Your task to perform on an android device: add a contact in the contacts app Image 0: 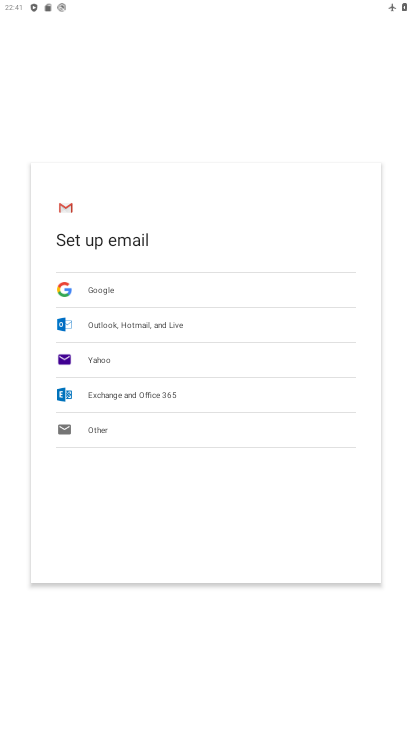
Step 0: press home button
Your task to perform on an android device: add a contact in the contacts app Image 1: 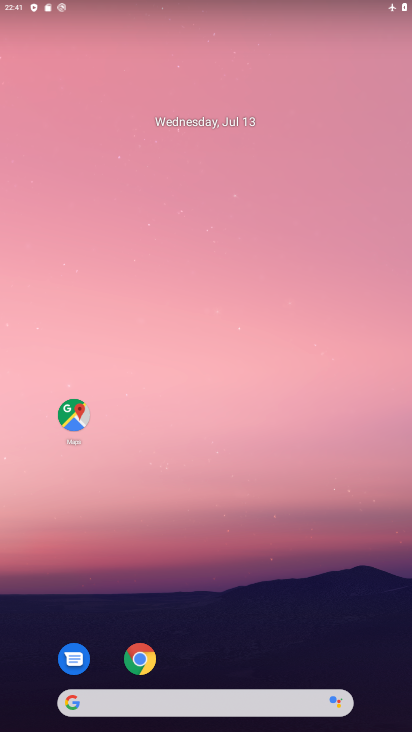
Step 1: drag from (403, 647) to (273, 0)
Your task to perform on an android device: add a contact in the contacts app Image 2: 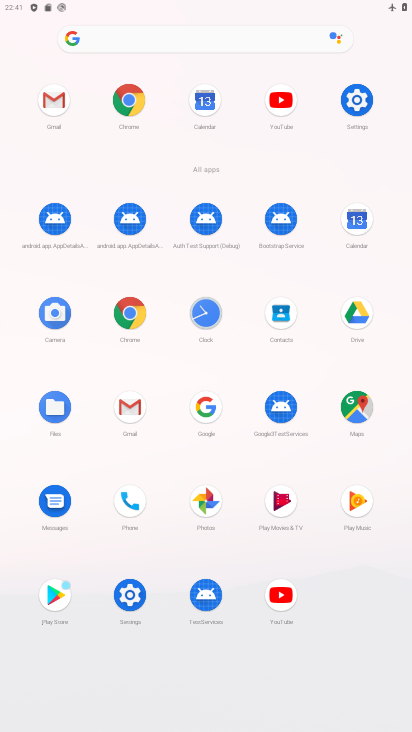
Step 2: click (281, 313)
Your task to perform on an android device: add a contact in the contacts app Image 3: 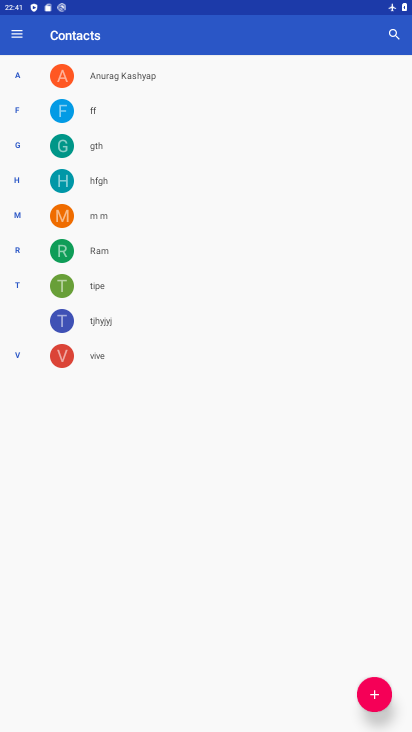
Step 3: click (377, 692)
Your task to perform on an android device: add a contact in the contacts app Image 4: 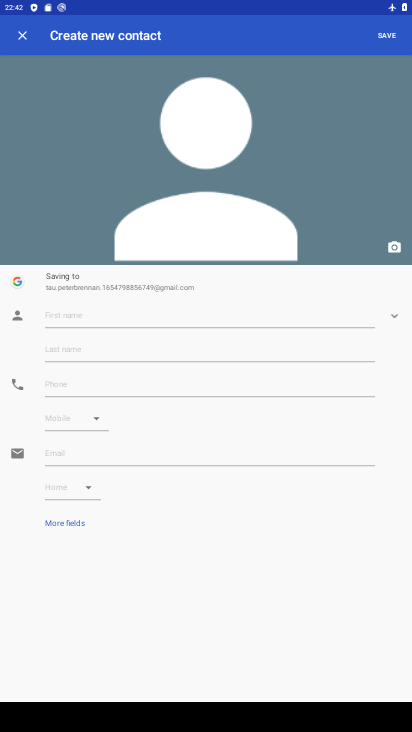
Step 4: click (98, 316)
Your task to perform on an android device: add a contact in the contacts app Image 5: 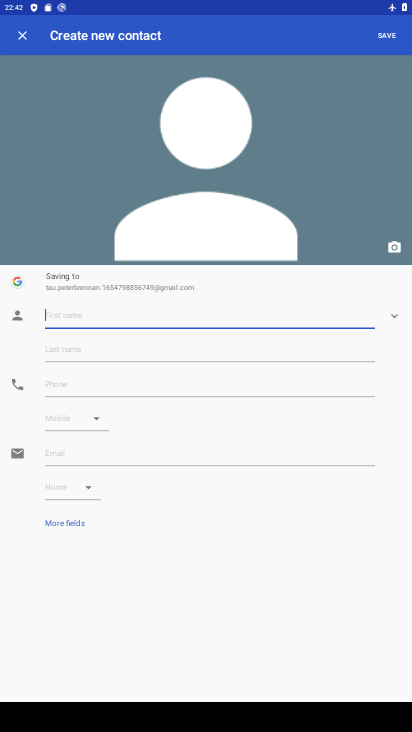
Step 5: type "jgjutyyr"
Your task to perform on an android device: add a contact in the contacts app Image 6: 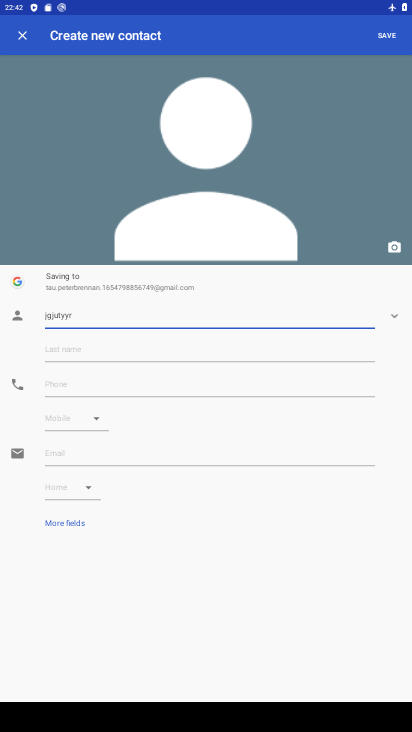
Step 6: click (98, 387)
Your task to perform on an android device: add a contact in the contacts app Image 7: 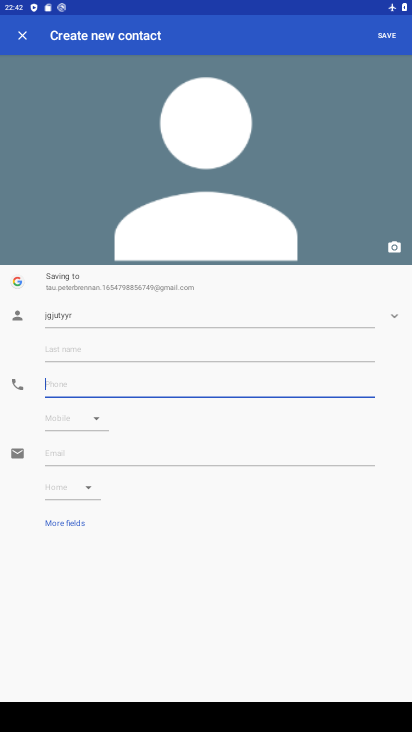
Step 7: type "986756435456"
Your task to perform on an android device: add a contact in the contacts app Image 8: 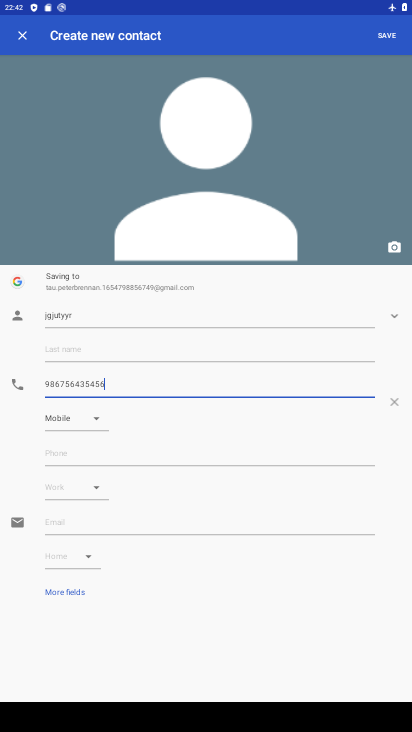
Step 8: click (383, 39)
Your task to perform on an android device: add a contact in the contacts app Image 9: 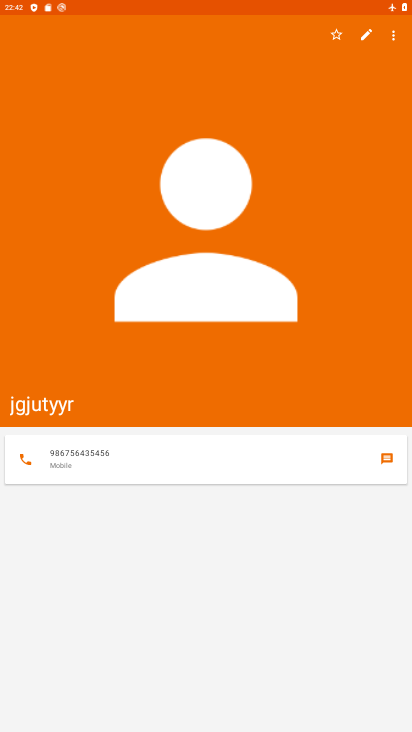
Step 9: task complete